Your task to perform on an android device: Go to Google maps Image 0: 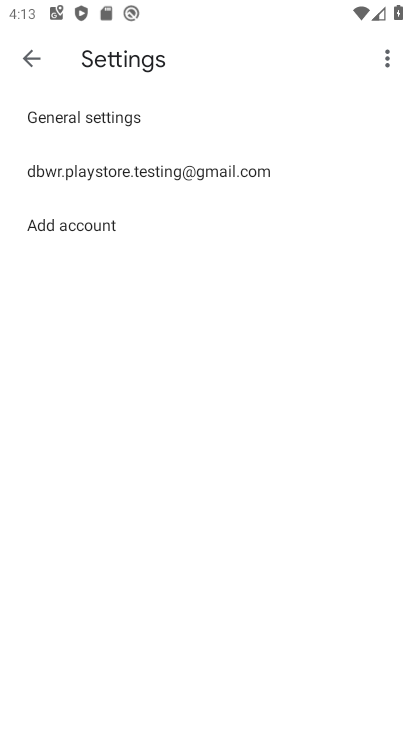
Step 0: press home button
Your task to perform on an android device: Go to Google maps Image 1: 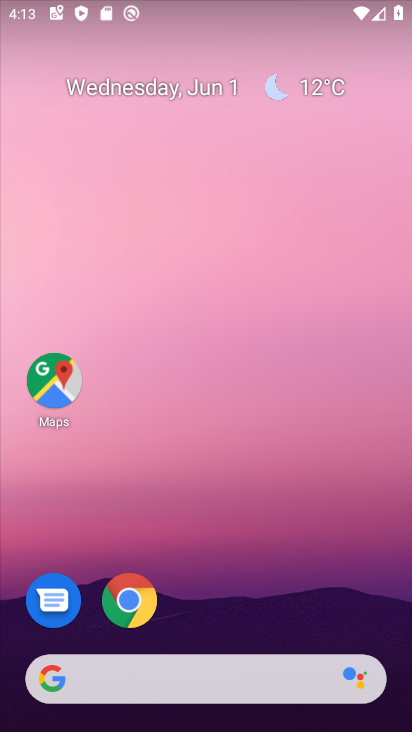
Step 1: click (54, 380)
Your task to perform on an android device: Go to Google maps Image 2: 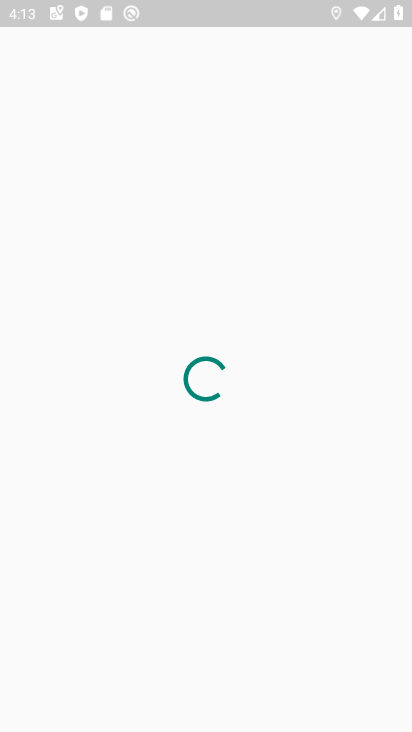
Step 2: click (322, 62)
Your task to perform on an android device: Go to Google maps Image 3: 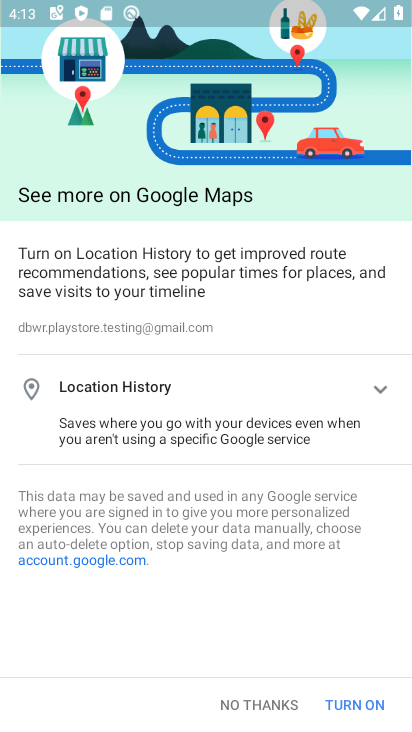
Step 3: click (246, 706)
Your task to perform on an android device: Go to Google maps Image 4: 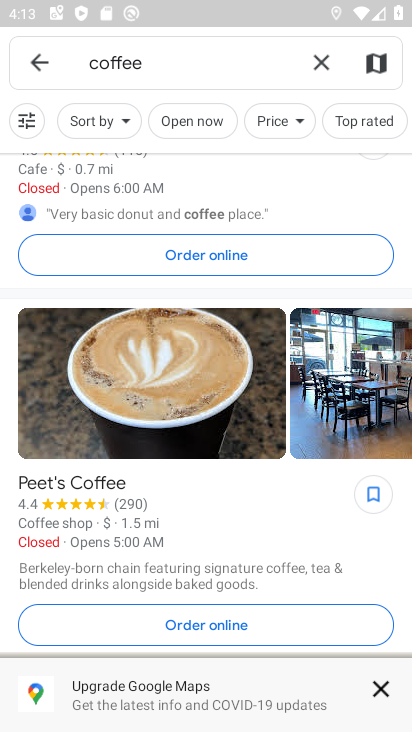
Step 4: click (322, 59)
Your task to perform on an android device: Go to Google maps Image 5: 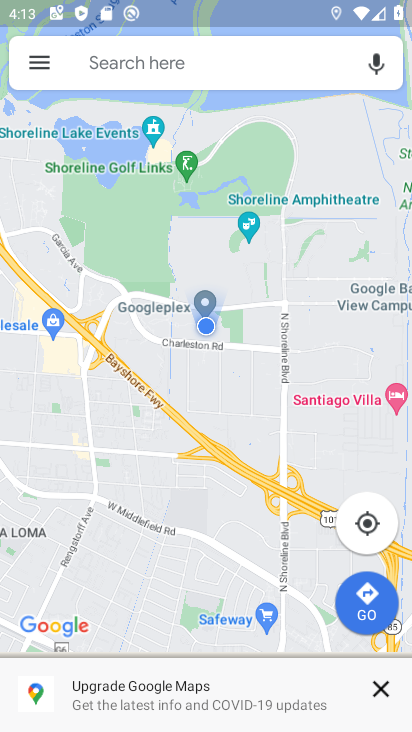
Step 5: task complete